Your task to perform on an android device: Do I have any events today? Image 0: 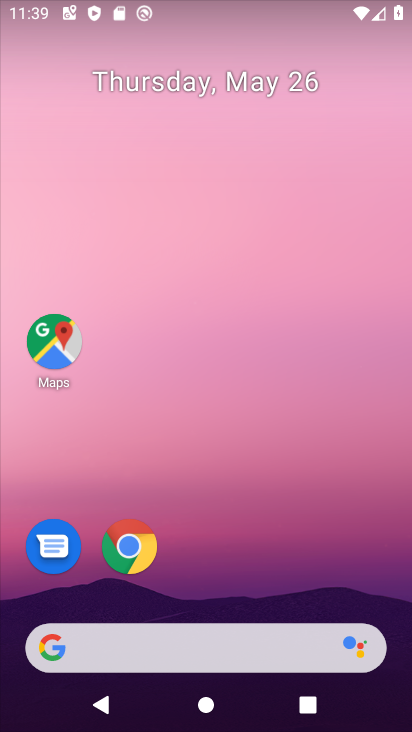
Step 0: drag from (259, 572) to (214, 177)
Your task to perform on an android device: Do I have any events today? Image 1: 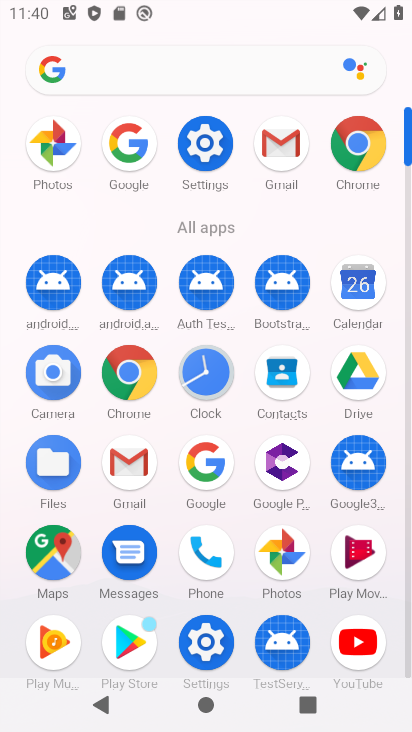
Step 1: click (357, 274)
Your task to perform on an android device: Do I have any events today? Image 2: 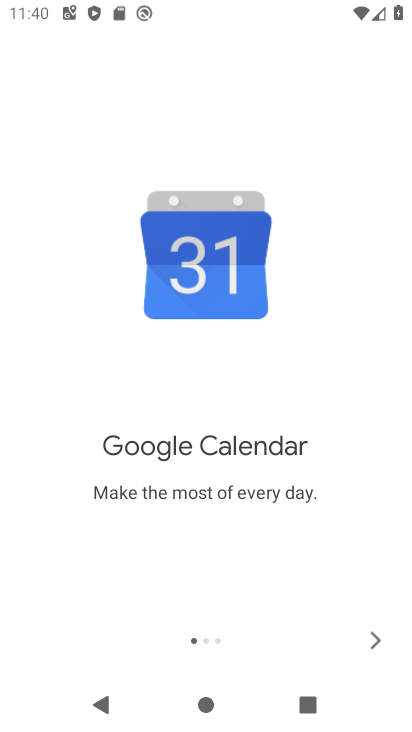
Step 2: click (378, 634)
Your task to perform on an android device: Do I have any events today? Image 3: 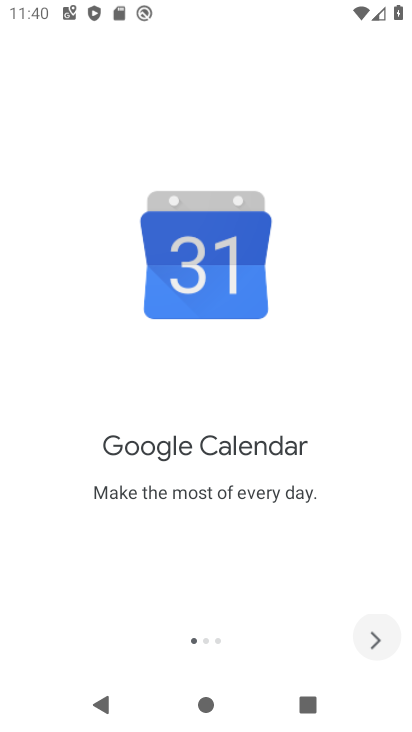
Step 3: click (378, 634)
Your task to perform on an android device: Do I have any events today? Image 4: 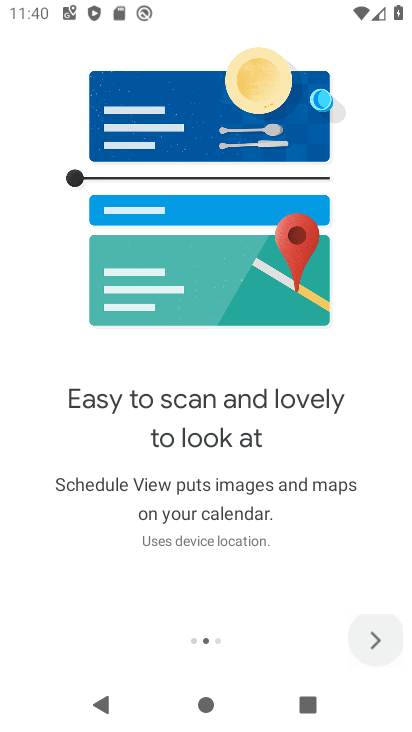
Step 4: click (378, 634)
Your task to perform on an android device: Do I have any events today? Image 5: 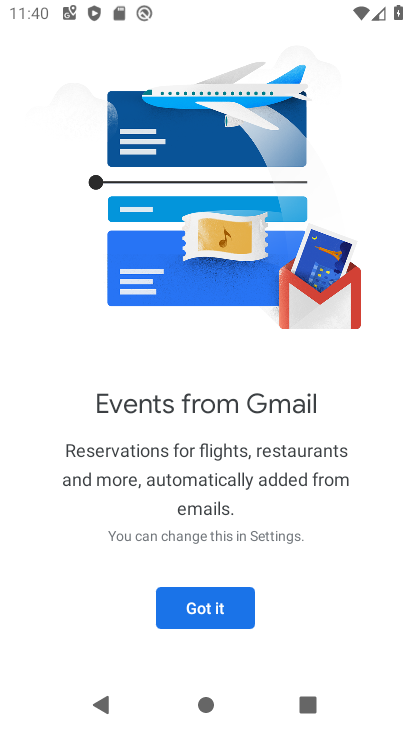
Step 5: click (199, 607)
Your task to perform on an android device: Do I have any events today? Image 6: 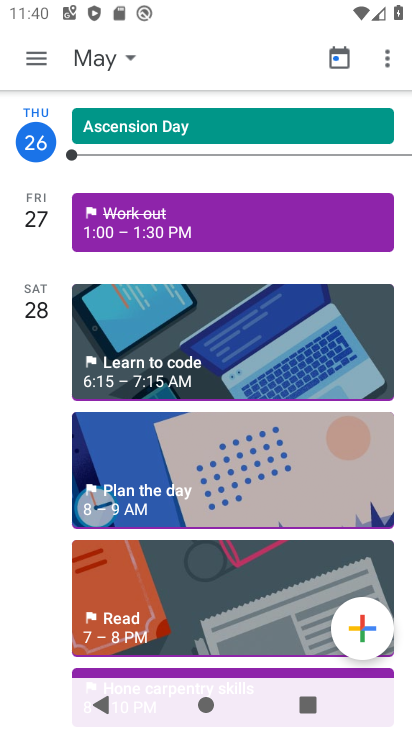
Step 6: click (39, 56)
Your task to perform on an android device: Do I have any events today? Image 7: 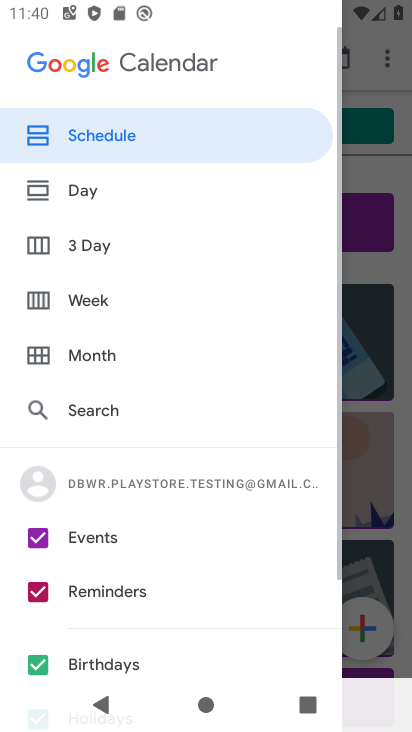
Step 7: click (80, 179)
Your task to perform on an android device: Do I have any events today? Image 8: 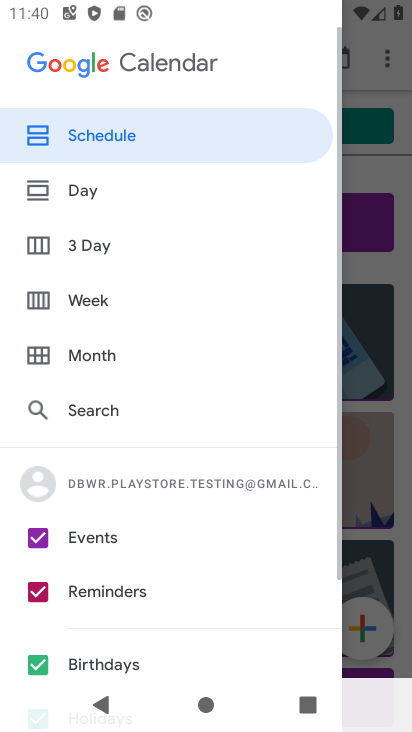
Step 8: click (76, 192)
Your task to perform on an android device: Do I have any events today? Image 9: 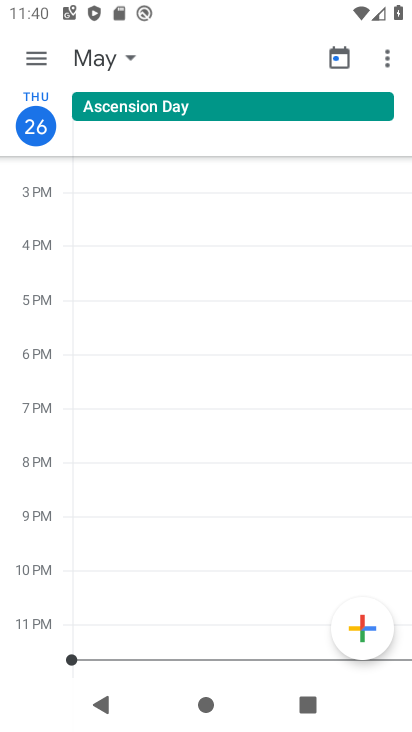
Step 9: task complete